Your task to perform on an android device: remove spam from my inbox in the gmail app Image 0: 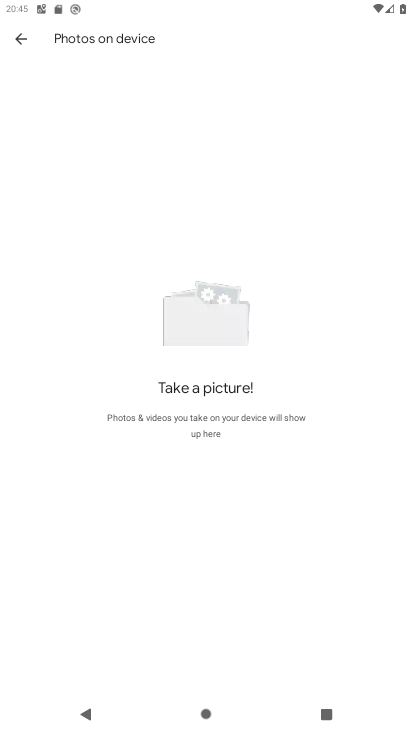
Step 0: press home button
Your task to perform on an android device: remove spam from my inbox in the gmail app Image 1: 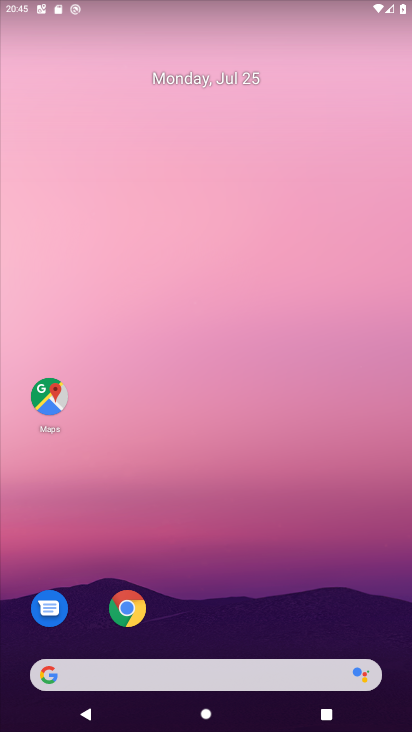
Step 1: drag from (236, 613) to (285, 193)
Your task to perform on an android device: remove spam from my inbox in the gmail app Image 2: 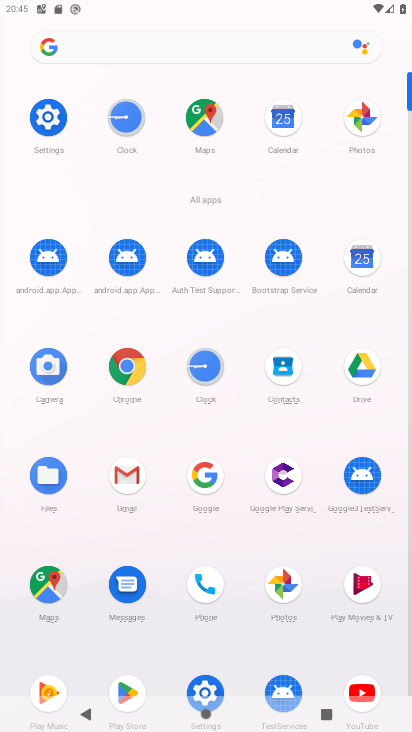
Step 2: click (125, 474)
Your task to perform on an android device: remove spam from my inbox in the gmail app Image 3: 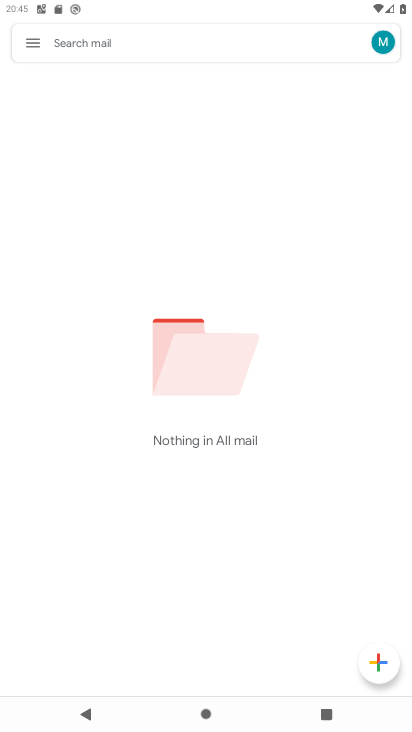
Step 3: click (28, 50)
Your task to perform on an android device: remove spam from my inbox in the gmail app Image 4: 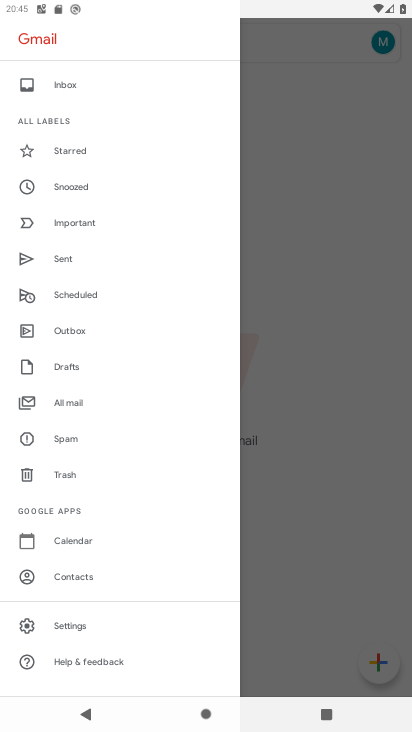
Step 4: click (61, 439)
Your task to perform on an android device: remove spam from my inbox in the gmail app Image 5: 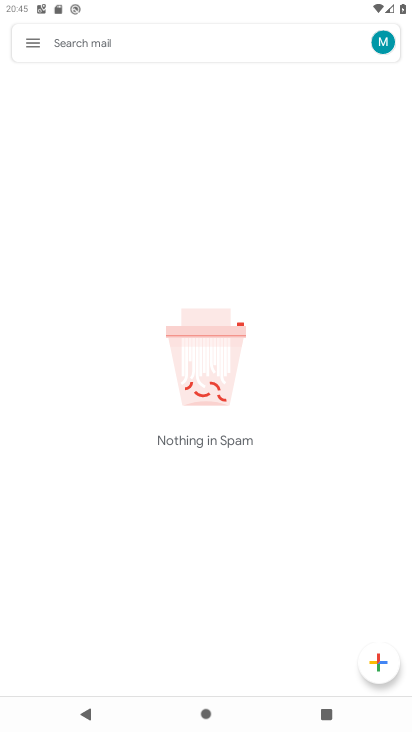
Step 5: task complete